Your task to perform on an android device: change the clock display to analog Image 0: 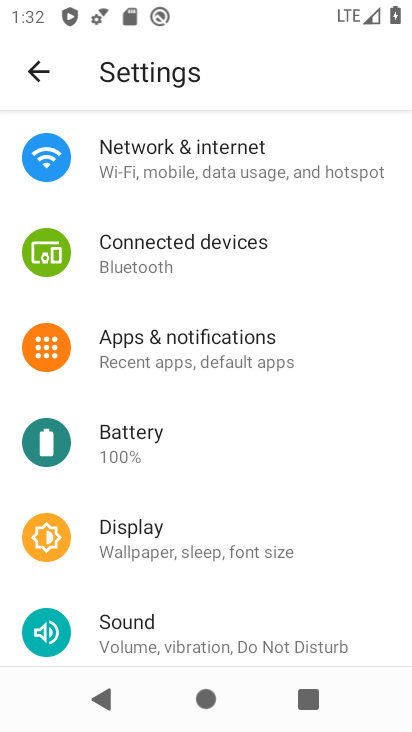
Step 0: press home button
Your task to perform on an android device: change the clock display to analog Image 1: 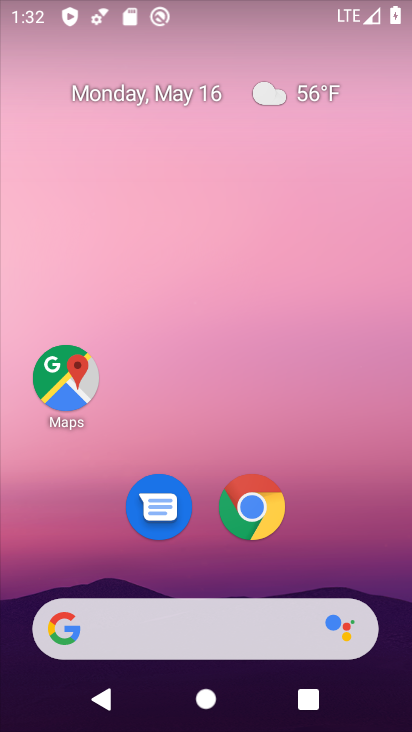
Step 1: drag from (199, 564) to (172, 168)
Your task to perform on an android device: change the clock display to analog Image 2: 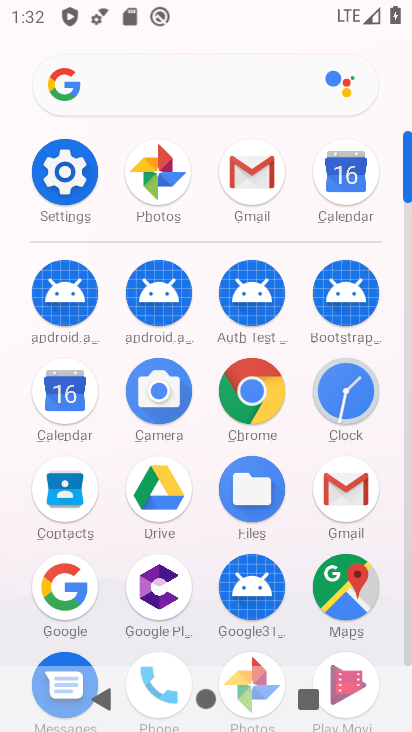
Step 2: click (352, 404)
Your task to perform on an android device: change the clock display to analog Image 3: 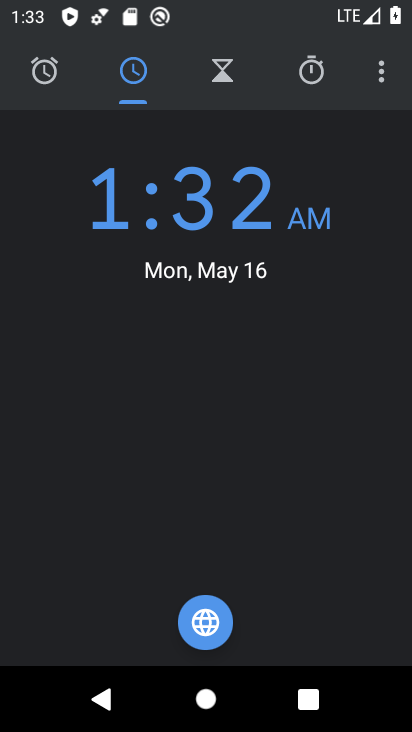
Step 3: click (377, 64)
Your task to perform on an android device: change the clock display to analog Image 4: 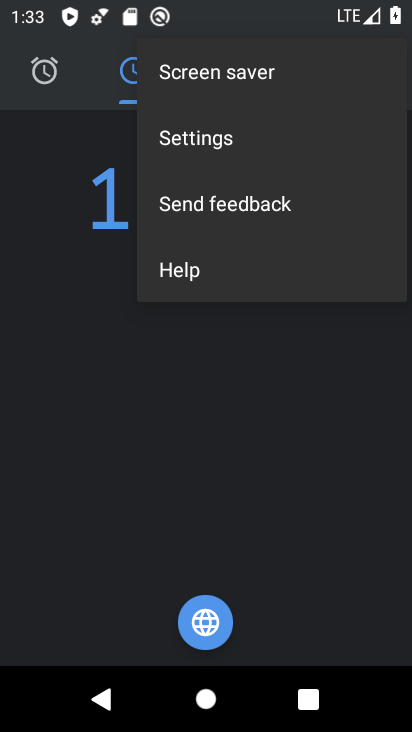
Step 4: click (253, 135)
Your task to perform on an android device: change the clock display to analog Image 5: 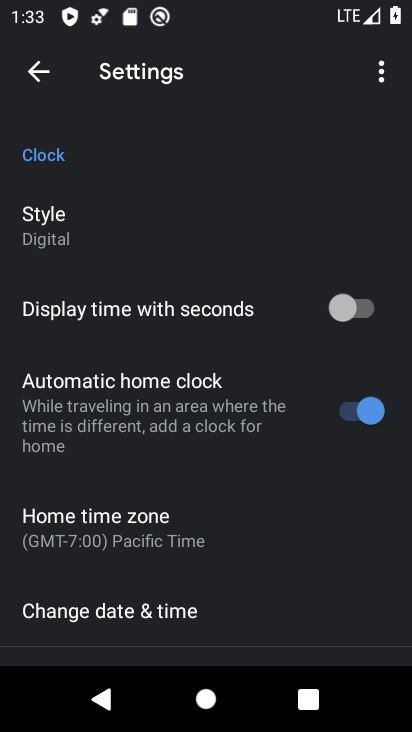
Step 5: click (121, 244)
Your task to perform on an android device: change the clock display to analog Image 6: 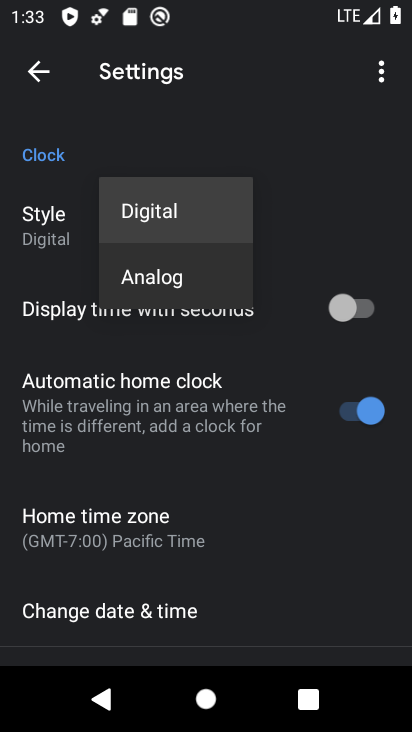
Step 6: click (146, 278)
Your task to perform on an android device: change the clock display to analog Image 7: 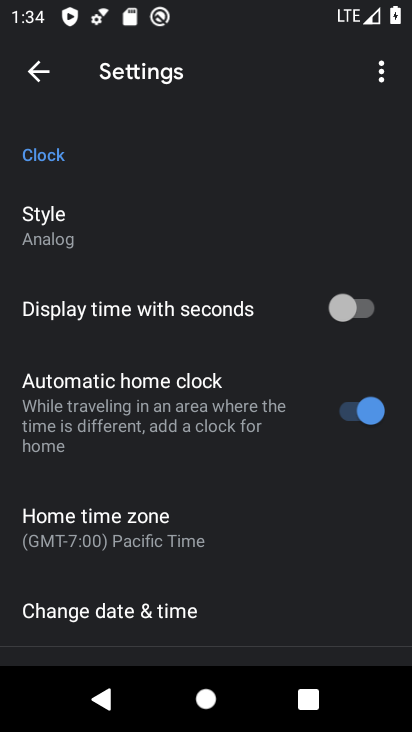
Step 7: task complete